Your task to perform on an android device: open device folders in google photos Image 0: 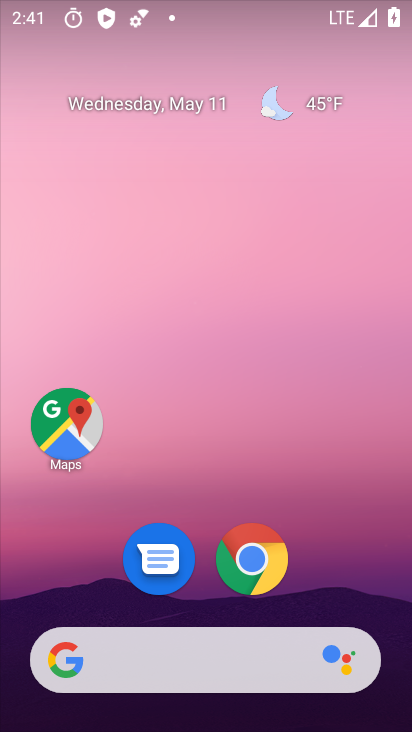
Step 0: drag from (299, 448) to (239, 109)
Your task to perform on an android device: open device folders in google photos Image 1: 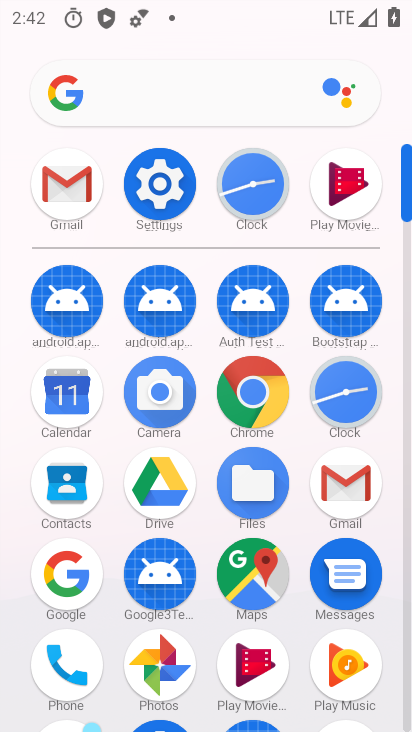
Step 1: click (165, 667)
Your task to perform on an android device: open device folders in google photos Image 2: 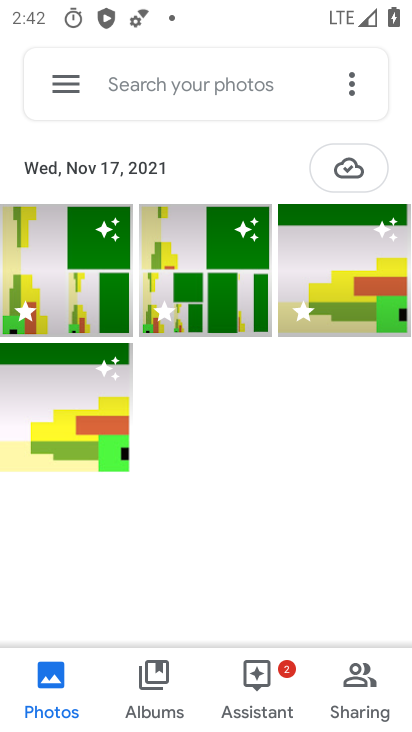
Step 2: click (63, 87)
Your task to perform on an android device: open device folders in google photos Image 3: 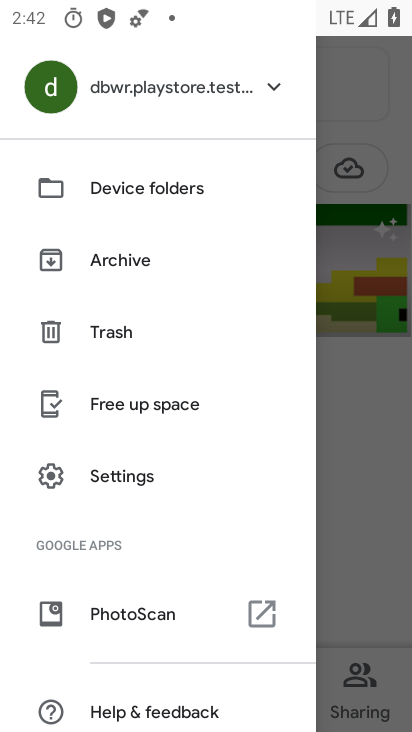
Step 3: click (162, 190)
Your task to perform on an android device: open device folders in google photos Image 4: 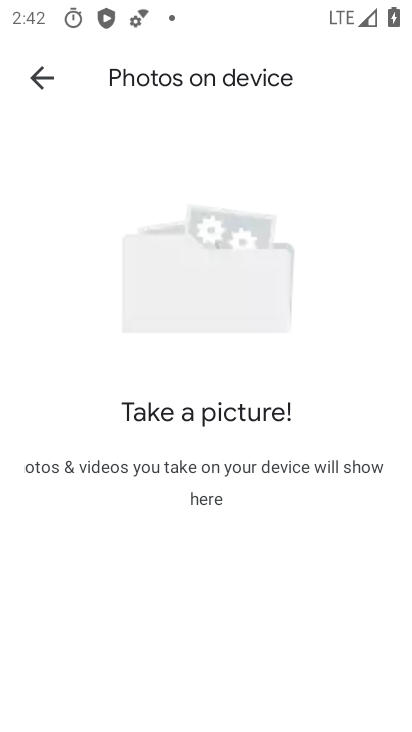
Step 4: task complete